Your task to perform on an android device: open chrome privacy settings Image 0: 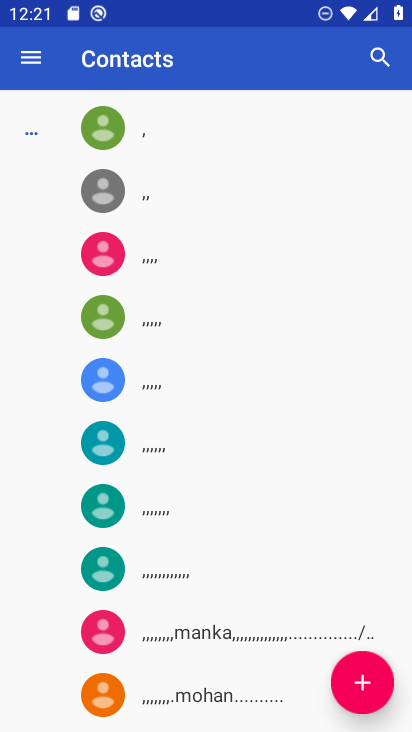
Step 0: press home button
Your task to perform on an android device: open chrome privacy settings Image 1: 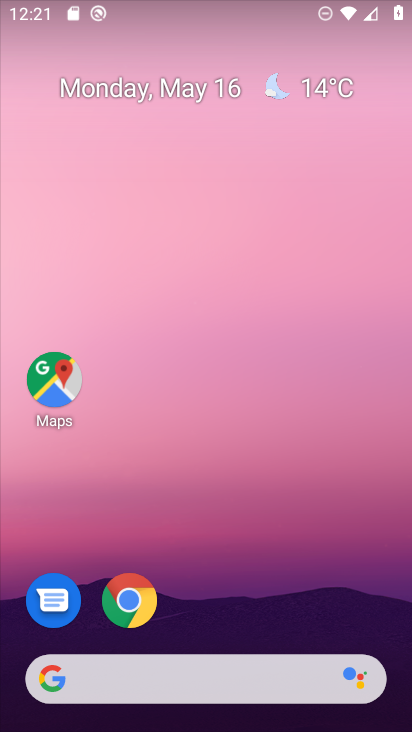
Step 1: click (126, 600)
Your task to perform on an android device: open chrome privacy settings Image 2: 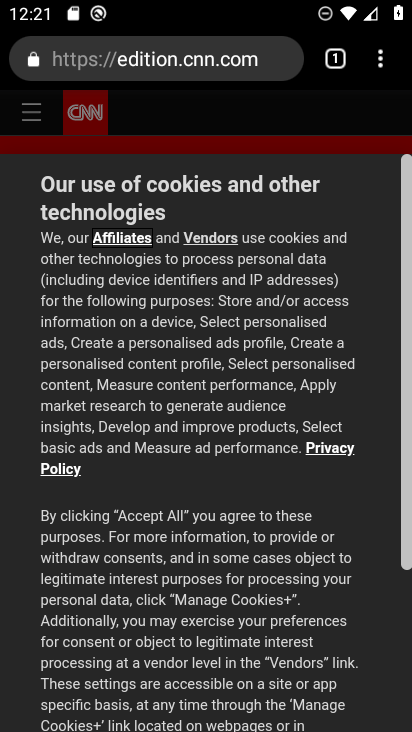
Step 2: click (379, 63)
Your task to perform on an android device: open chrome privacy settings Image 3: 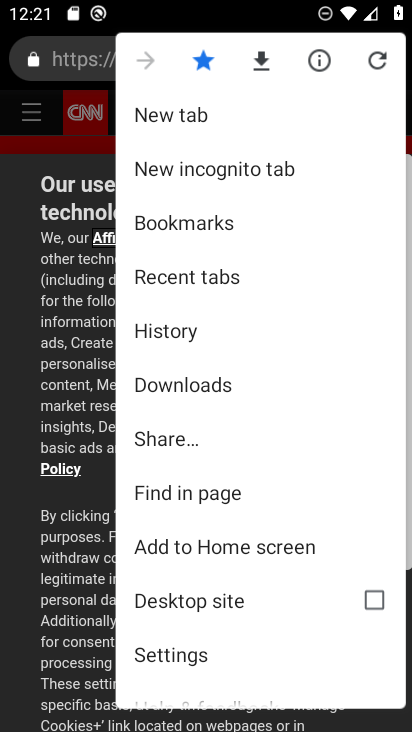
Step 3: drag from (300, 633) to (318, 291)
Your task to perform on an android device: open chrome privacy settings Image 4: 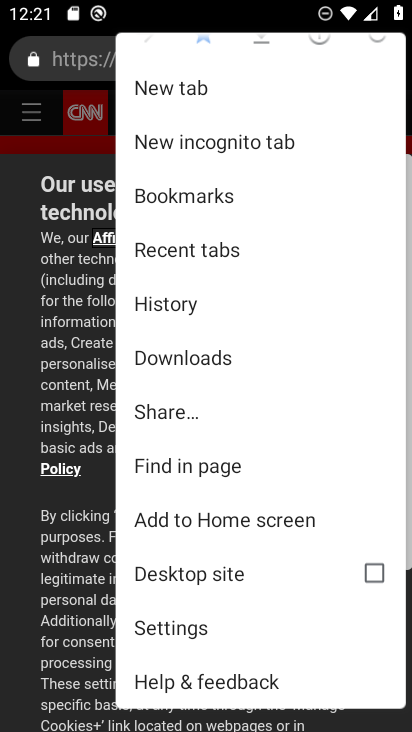
Step 4: click (170, 633)
Your task to perform on an android device: open chrome privacy settings Image 5: 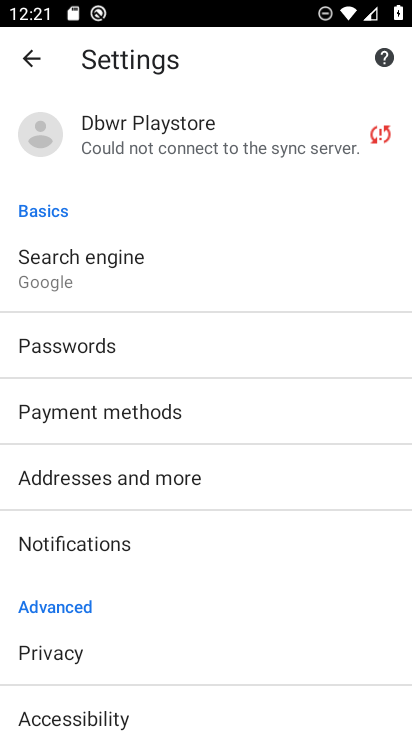
Step 5: drag from (204, 663) to (242, 296)
Your task to perform on an android device: open chrome privacy settings Image 6: 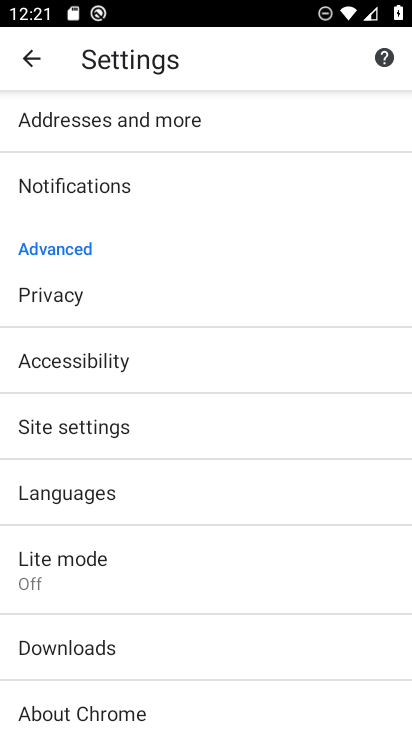
Step 6: click (57, 290)
Your task to perform on an android device: open chrome privacy settings Image 7: 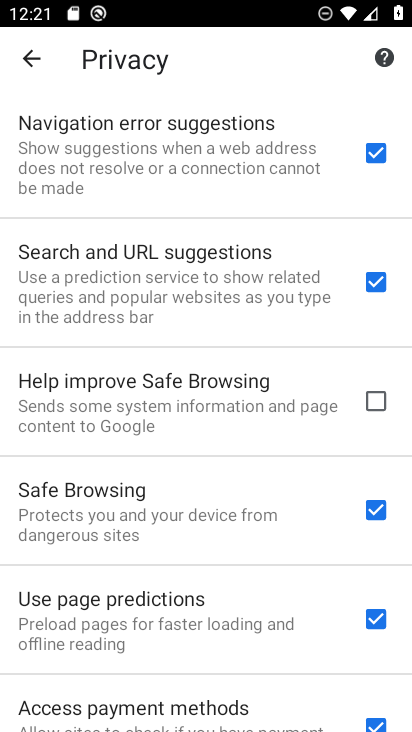
Step 7: task complete